Your task to perform on an android device: open device folders in google photos Image 0: 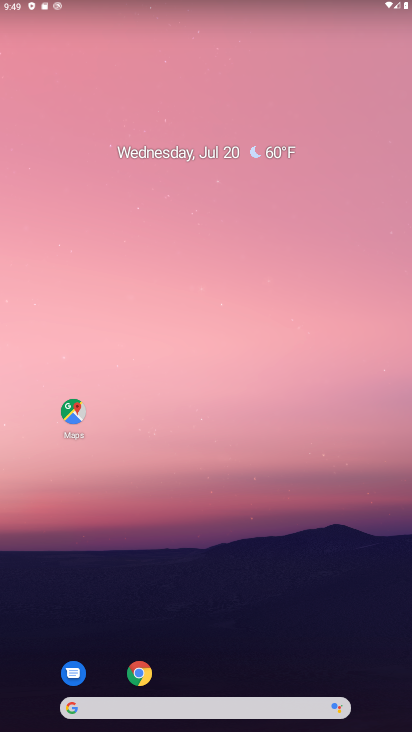
Step 0: drag from (298, 605) to (268, 6)
Your task to perform on an android device: open device folders in google photos Image 1: 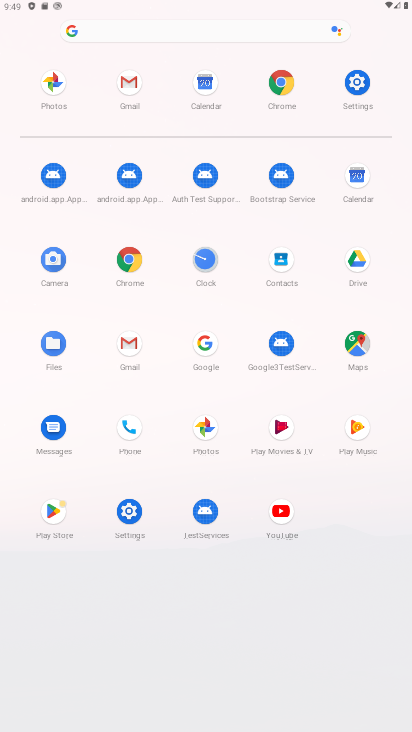
Step 1: click (210, 436)
Your task to perform on an android device: open device folders in google photos Image 2: 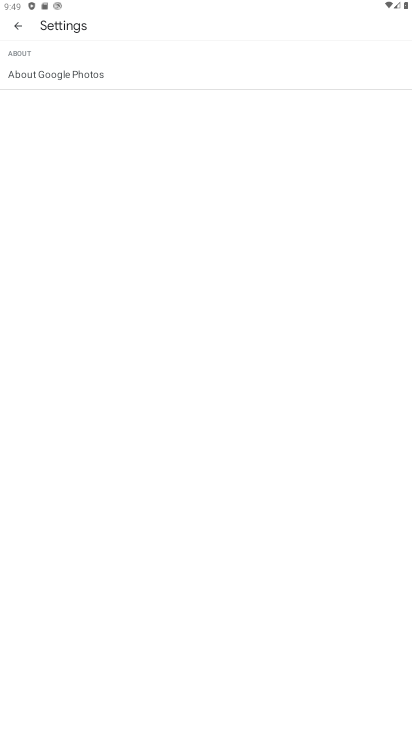
Step 2: click (22, 24)
Your task to perform on an android device: open device folders in google photos Image 3: 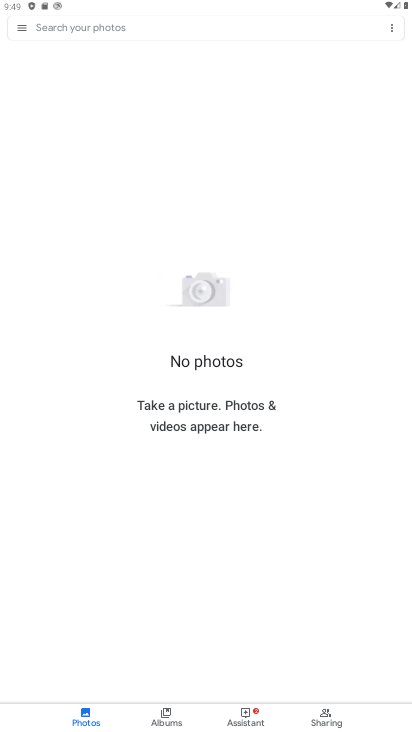
Step 3: click (25, 27)
Your task to perform on an android device: open device folders in google photos Image 4: 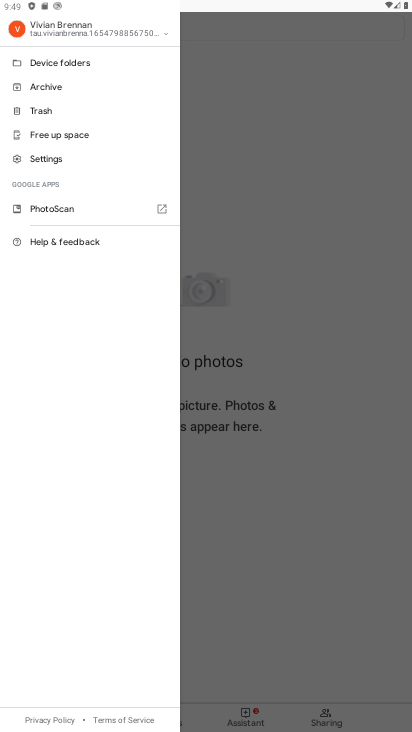
Step 4: click (57, 66)
Your task to perform on an android device: open device folders in google photos Image 5: 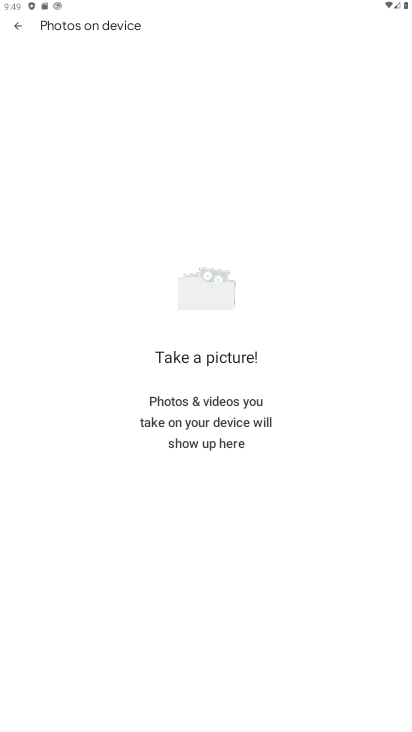
Step 5: task complete